Your task to perform on an android device: turn pop-ups on in chrome Image 0: 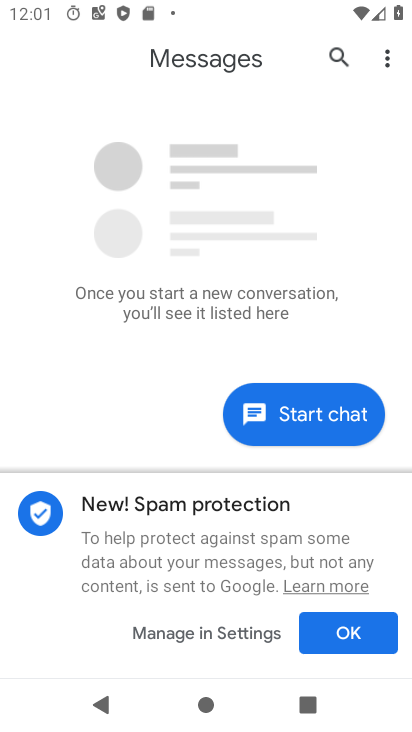
Step 0: press home button
Your task to perform on an android device: turn pop-ups on in chrome Image 1: 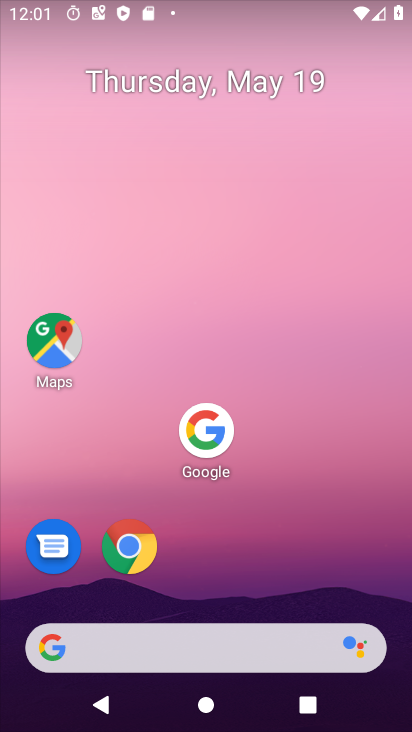
Step 1: click (135, 549)
Your task to perform on an android device: turn pop-ups on in chrome Image 2: 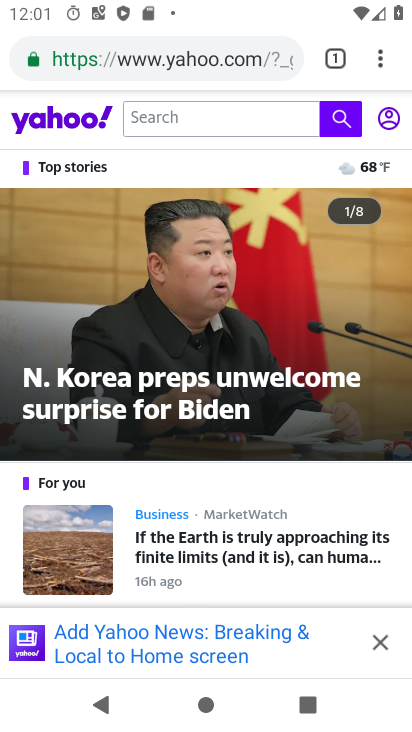
Step 2: click (370, 70)
Your task to perform on an android device: turn pop-ups on in chrome Image 3: 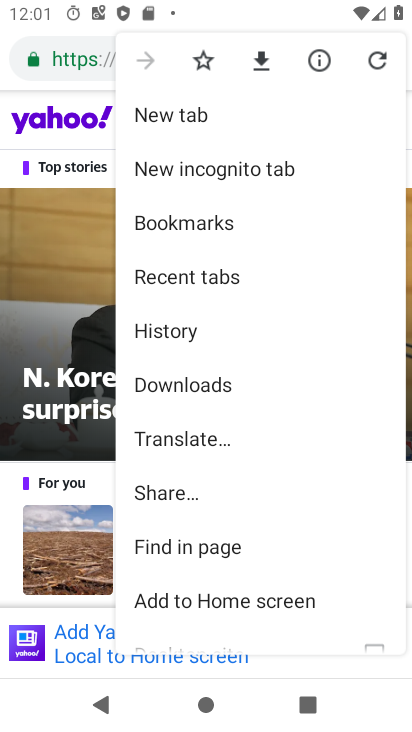
Step 3: drag from (331, 500) to (272, 78)
Your task to perform on an android device: turn pop-ups on in chrome Image 4: 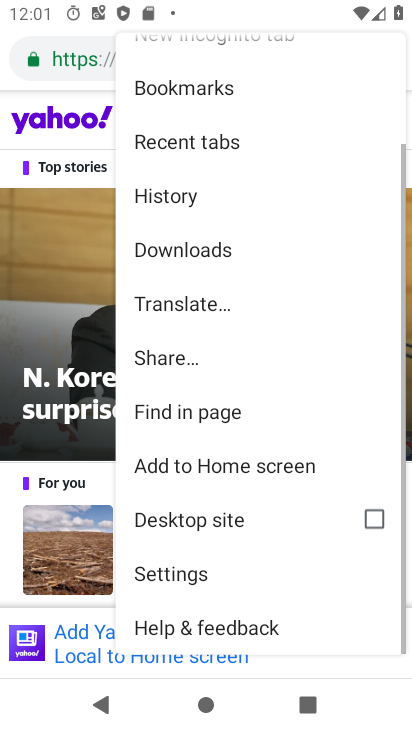
Step 4: click (214, 578)
Your task to perform on an android device: turn pop-ups on in chrome Image 5: 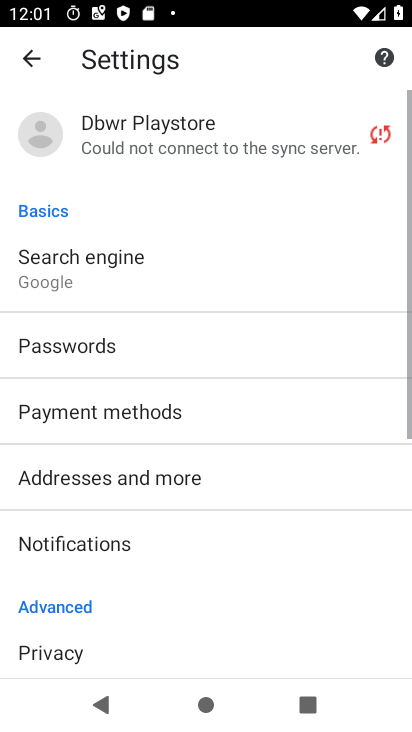
Step 5: drag from (241, 521) to (198, 122)
Your task to perform on an android device: turn pop-ups on in chrome Image 6: 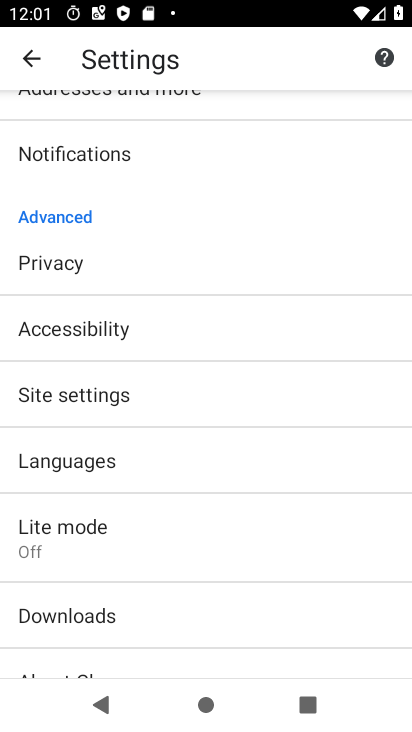
Step 6: click (101, 392)
Your task to perform on an android device: turn pop-ups on in chrome Image 7: 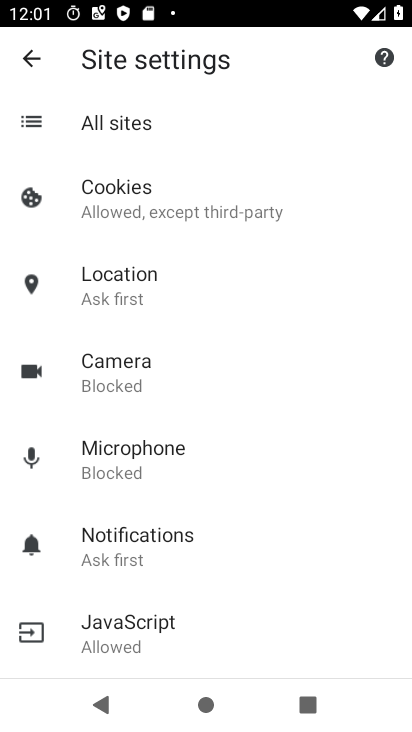
Step 7: drag from (246, 522) to (249, 146)
Your task to perform on an android device: turn pop-ups on in chrome Image 8: 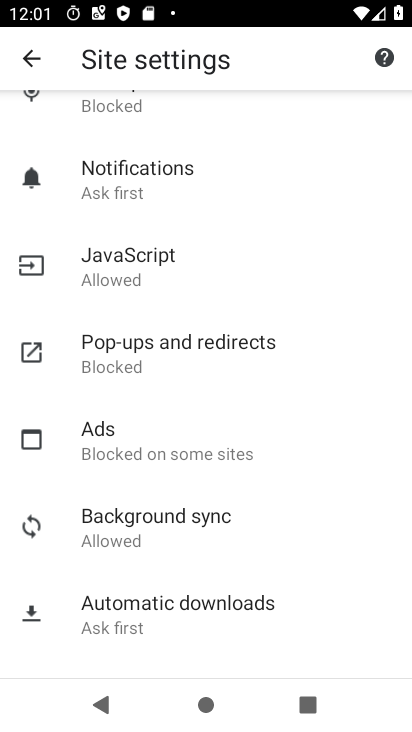
Step 8: click (153, 359)
Your task to perform on an android device: turn pop-ups on in chrome Image 9: 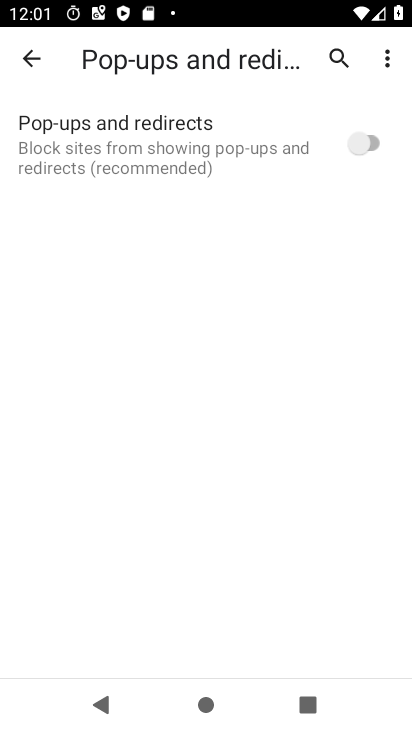
Step 9: click (368, 141)
Your task to perform on an android device: turn pop-ups on in chrome Image 10: 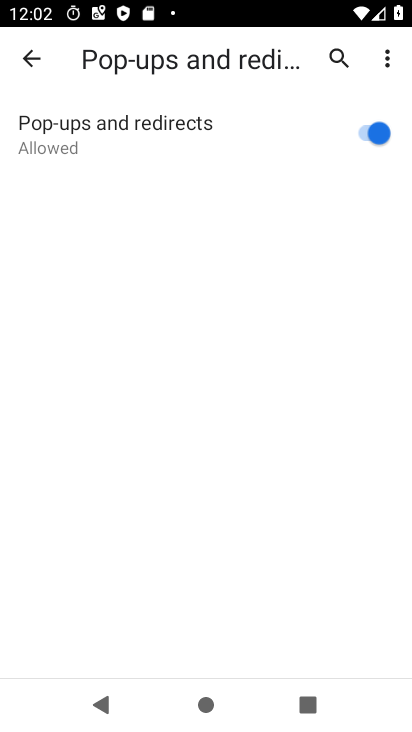
Step 10: task complete